Your task to perform on an android device: open a new tab in the chrome app Image 0: 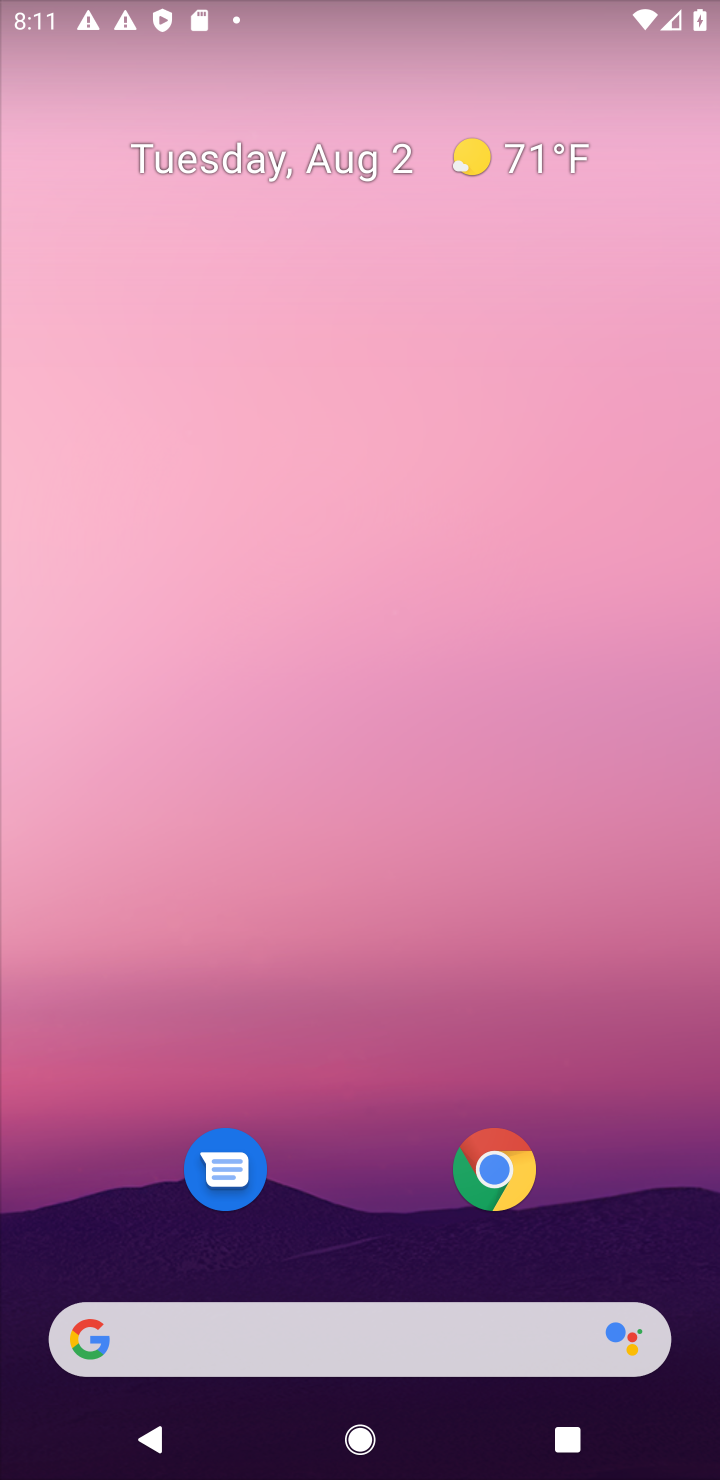
Step 0: click (491, 1163)
Your task to perform on an android device: open a new tab in the chrome app Image 1: 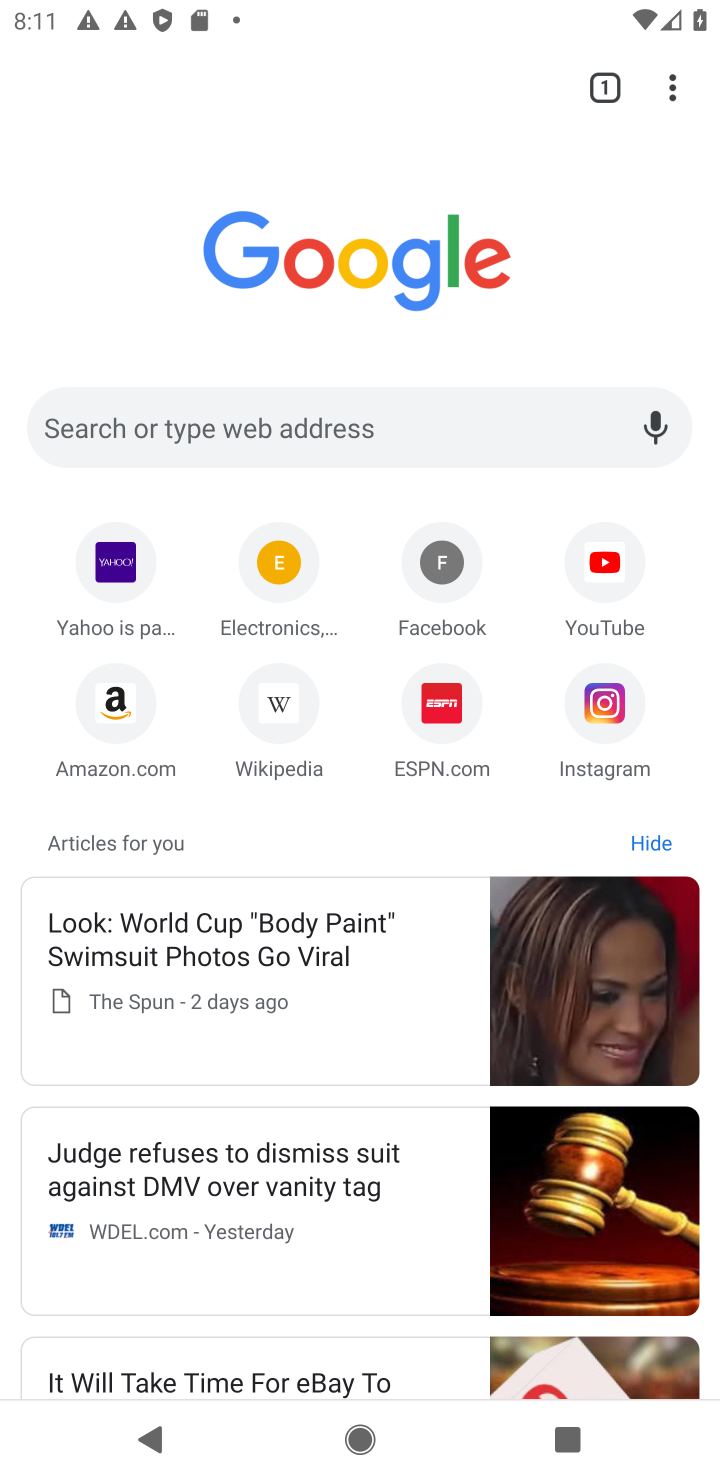
Step 1: click (666, 92)
Your task to perform on an android device: open a new tab in the chrome app Image 2: 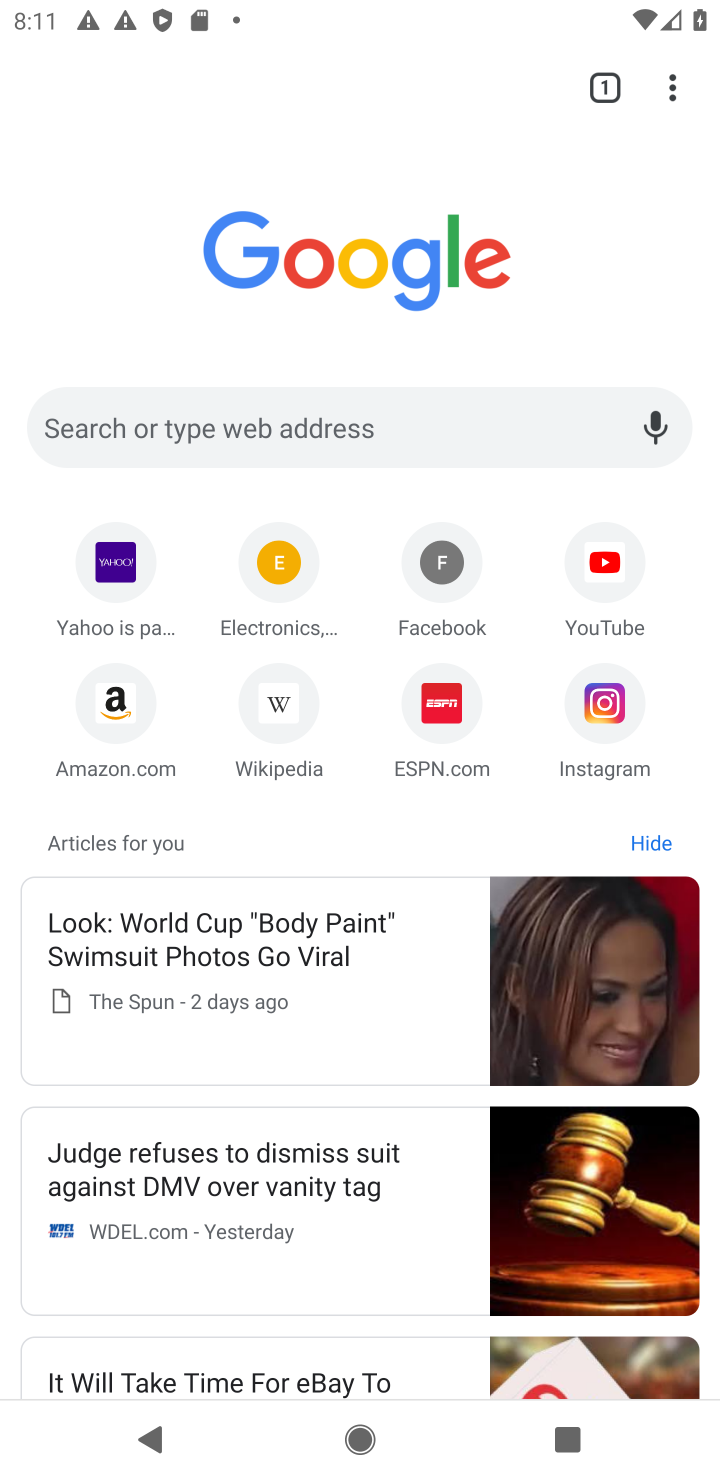
Step 2: click (669, 89)
Your task to perform on an android device: open a new tab in the chrome app Image 3: 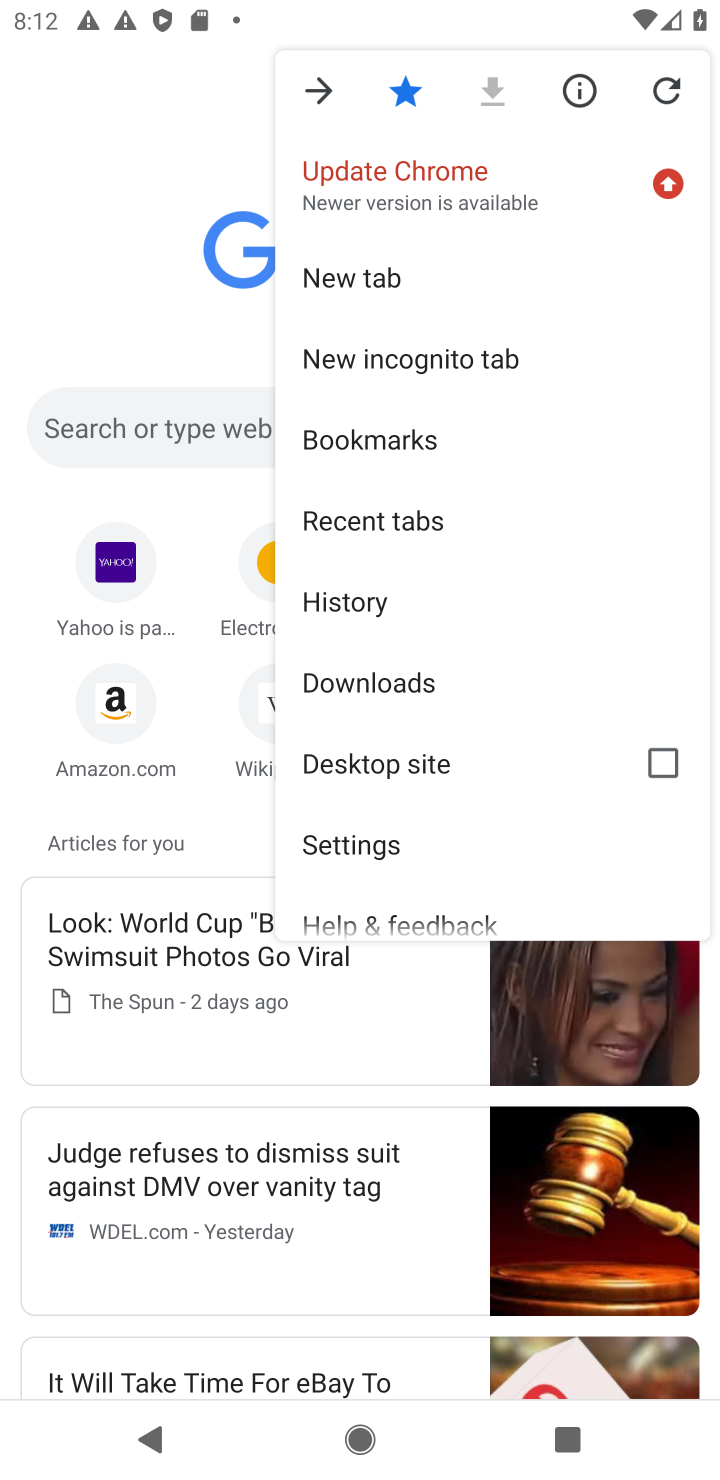
Step 3: click (391, 276)
Your task to perform on an android device: open a new tab in the chrome app Image 4: 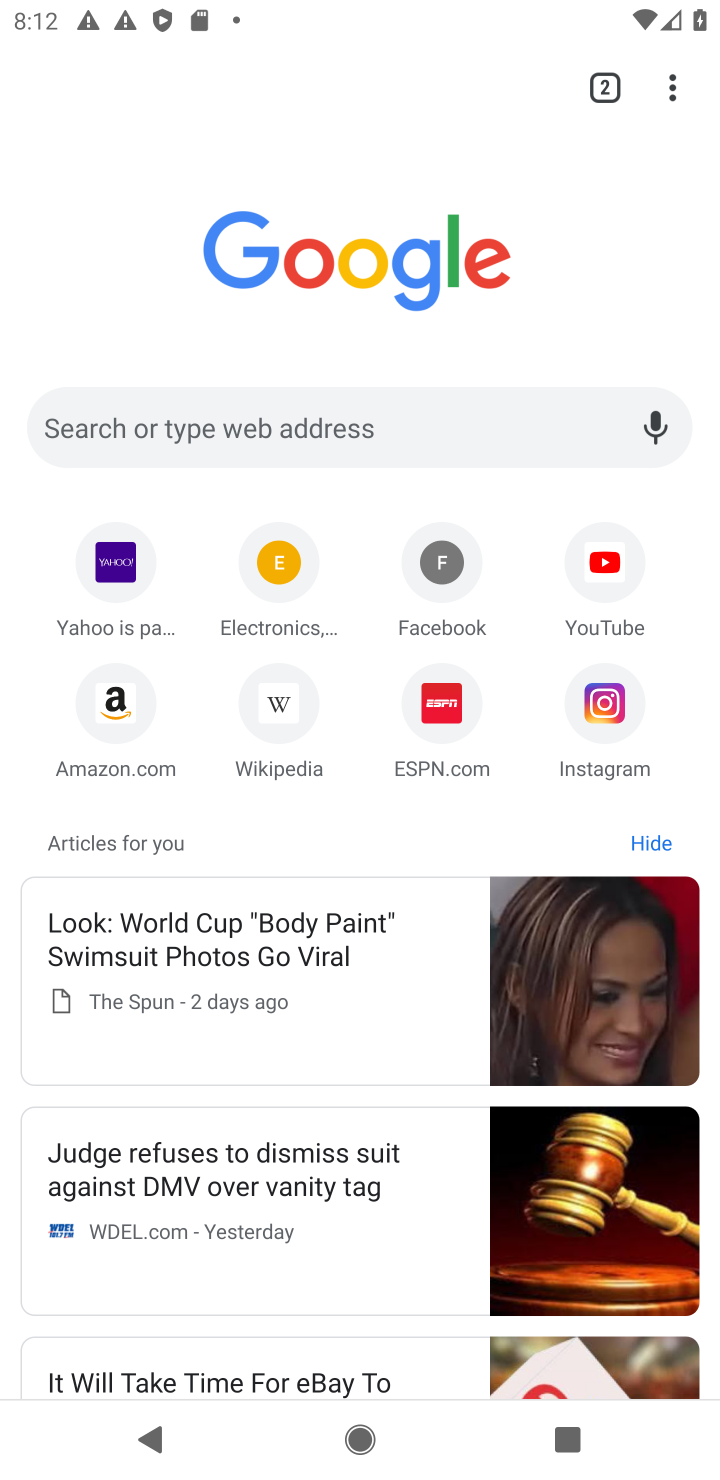
Step 4: task complete